Your task to perform on an android device: turn pop-ups off in chrome Image 0: 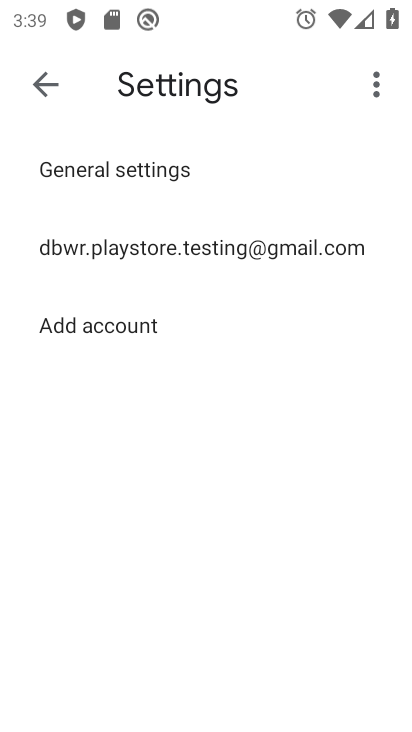
Step 0: press back button
Your task to perform on an android device: turn pop-ups off in chrome Image 1: 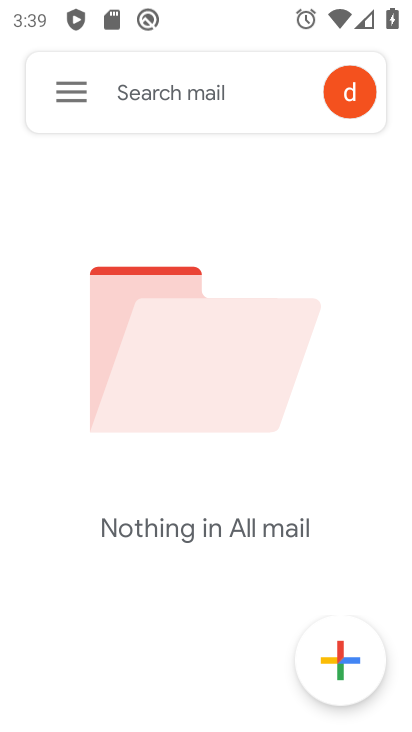
Step 1: press back button
Your task to perform on an android device: turn pop-ups off in chrome Image 2: 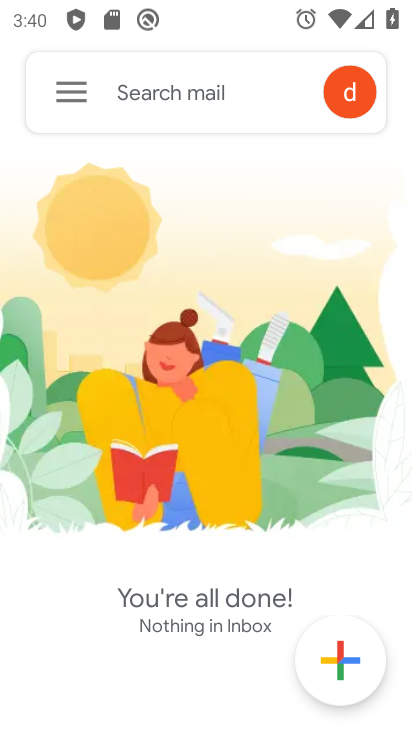
Step 2: press back button
Your task to perform on an android device: turn pop-ups off in chrome Image 3: 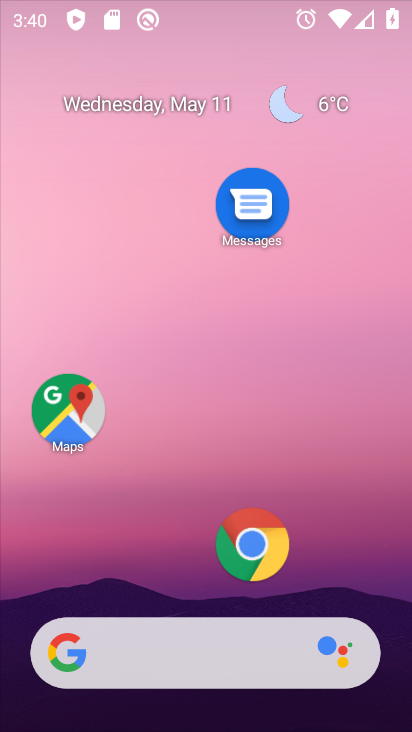
Step 3: press home button
Your task to perform on an android device: turn pop-ups off in chrome Image 4: 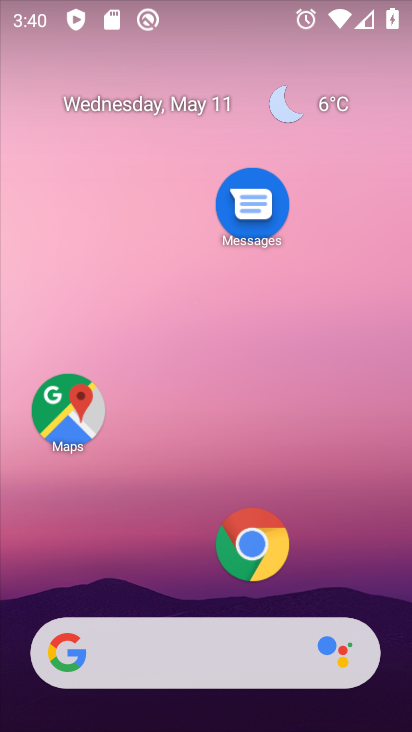
Step 4: click (250, 553)
Your task to perform on an android device: turn pop-ups off in chrome Image 5: 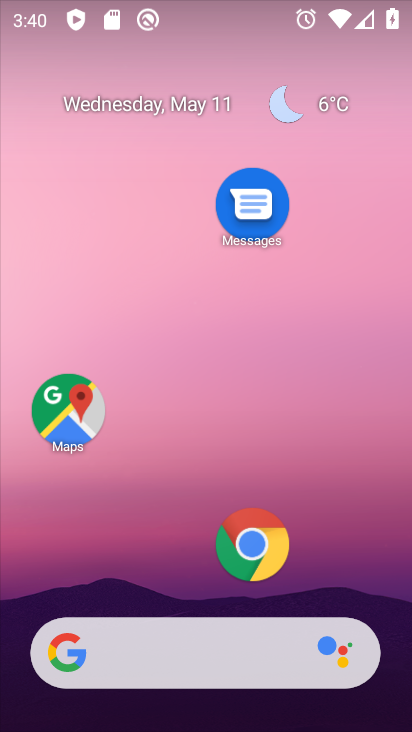
Step 5: click (256, 542)
Your task to perform on an android device: turn pop-ups off in chrome Image 6: 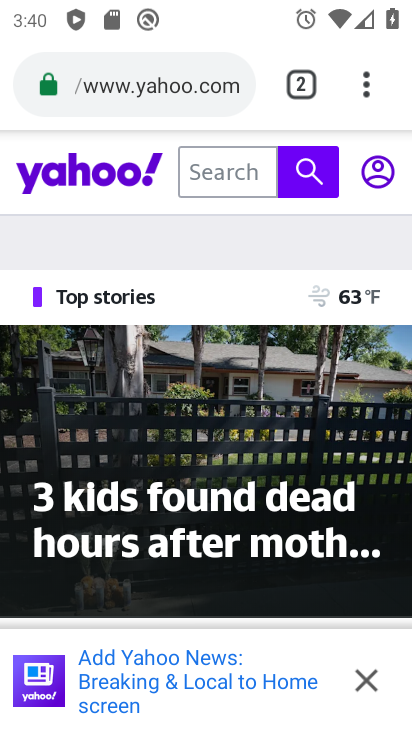
Step 6: drag from (362, 77) to (131, 608)
Your task to perform on an android device: turn pop-ups off in chrome Image 7: 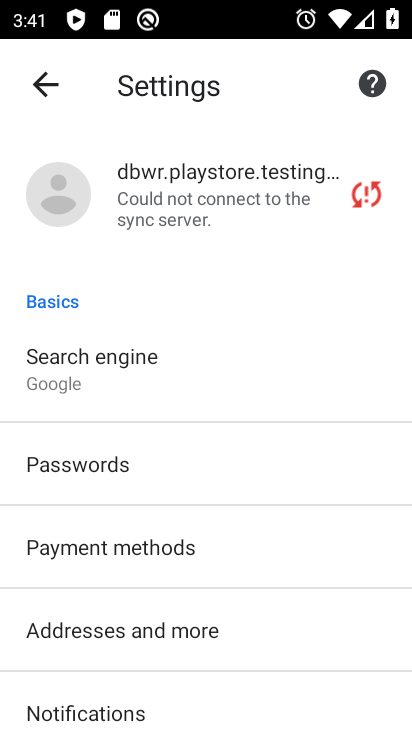
Step 7: drag from (178, 578) to (331, 85)
Your task to perform on an android device: turn pop-ups off in chrome Image 8: 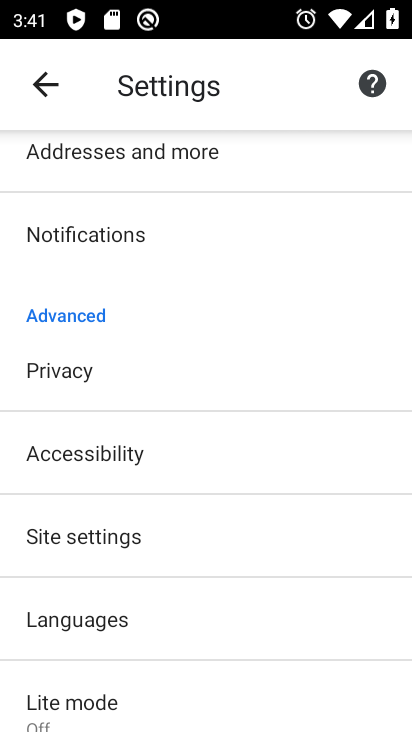
Step 8: click (141, 537)
Your task to perform on an android device: turn pop-ups off in chrome Image 9: 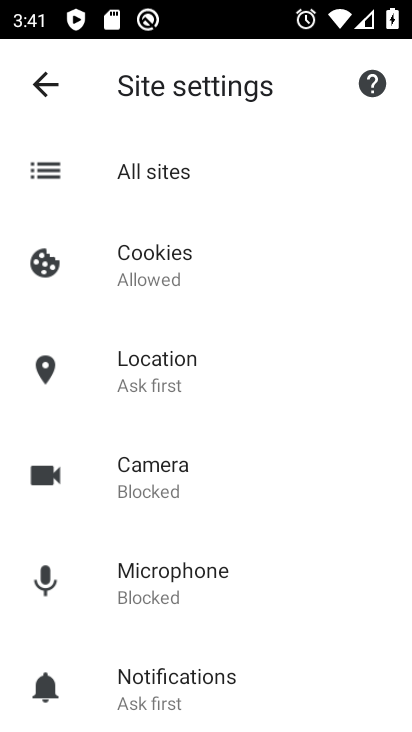
Step 9: drag from (214, 657) to (392, 82)
Your task to perform on an android device: turn pop-ups off in chrome Image 10: 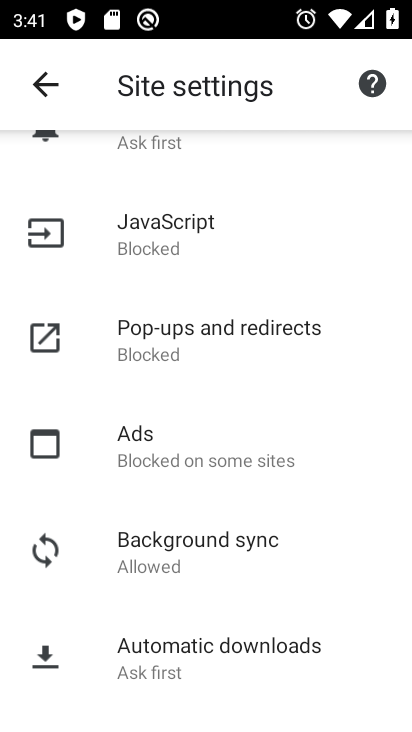
Step 10: click (214, 334)
Your task to perform on an android device: turn pop-ups off in chrome Image 11: 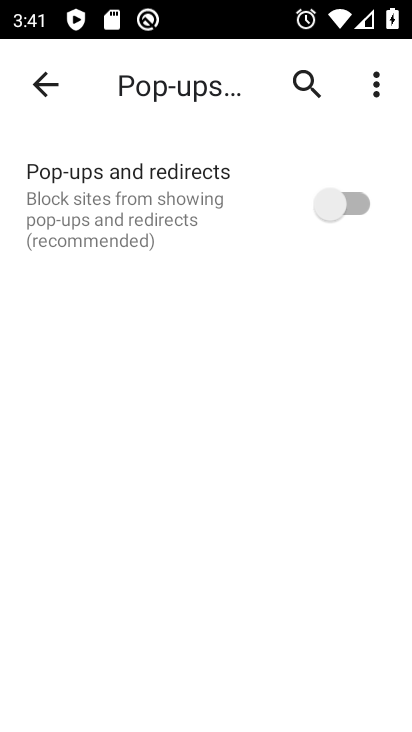
Step 11: task complete